Your task to perform on an android device: Open Google Image 0: 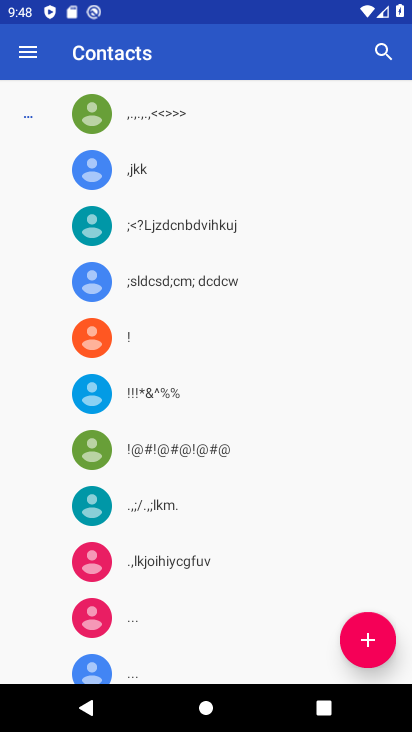
Step 0: press home button
Your task to perform on an android device: Open Google Image 1: 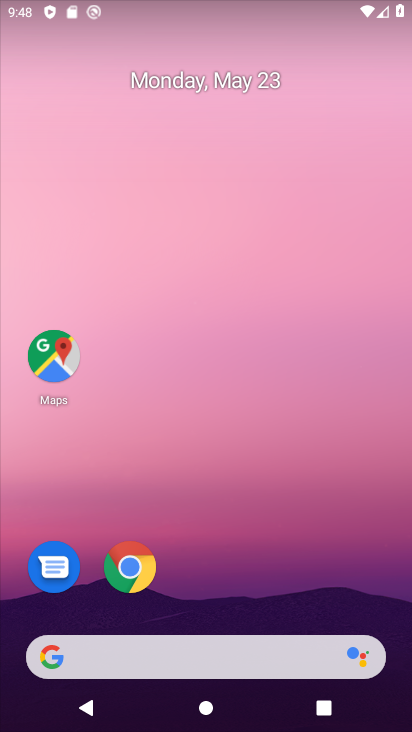
Step 1: drag from (199, 615) to (247, 175)
Your task to perform on an android device: Open Google Image 2: 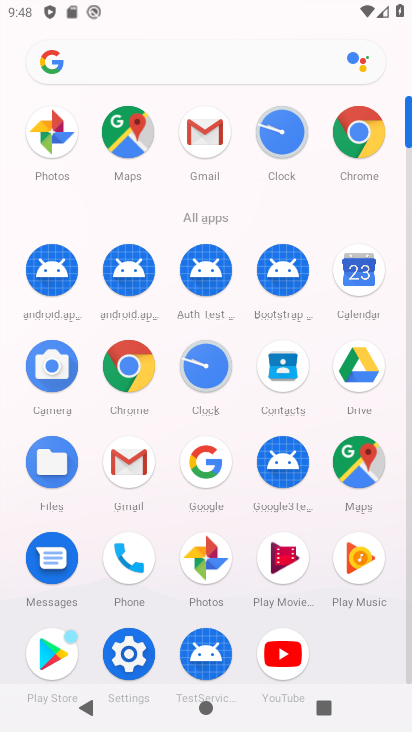
Step 2: click (211, 468)
Your task to perform on an android device: Open Google Image 3: 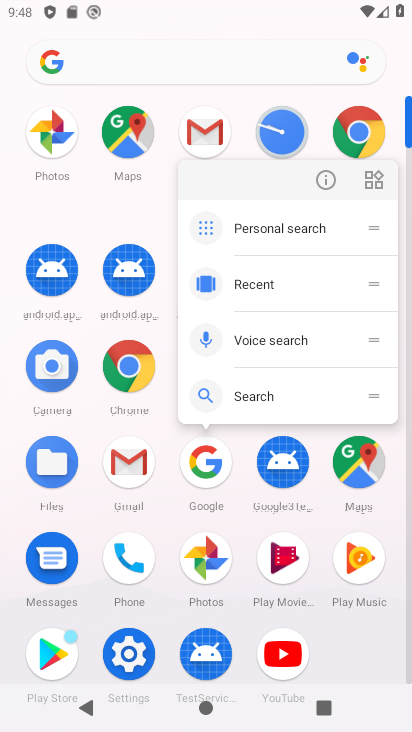
Step 3: click (206, 466)
Your task to perform on an android device: Open Google Image 4: 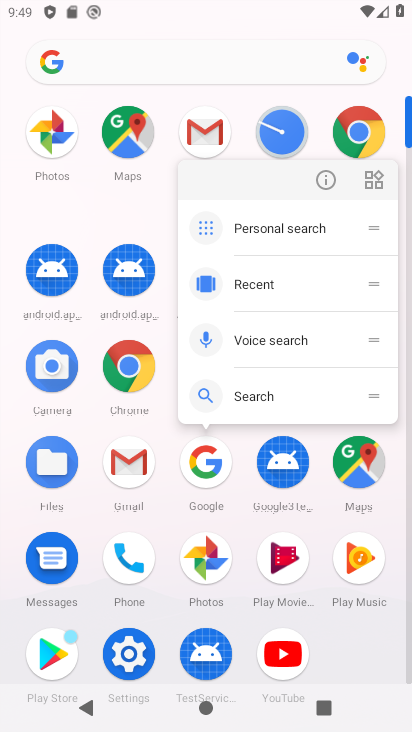
Step 4: click (195, 476)
Your task to perform on an android device: Open Google Image 5: 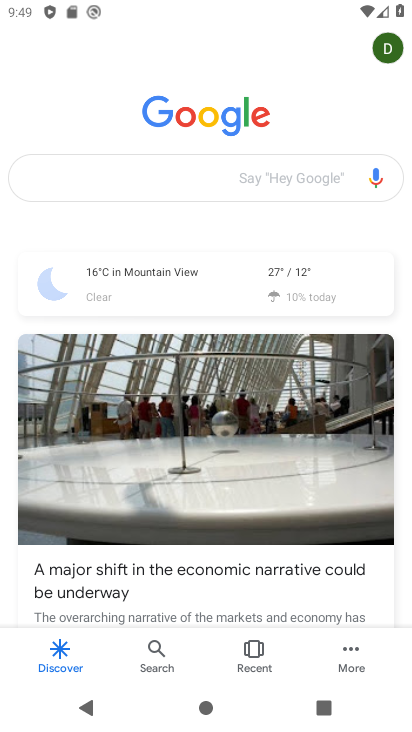
Step 5: task complete